Your task to perform on an android device: Open the stopwatch Image 0: 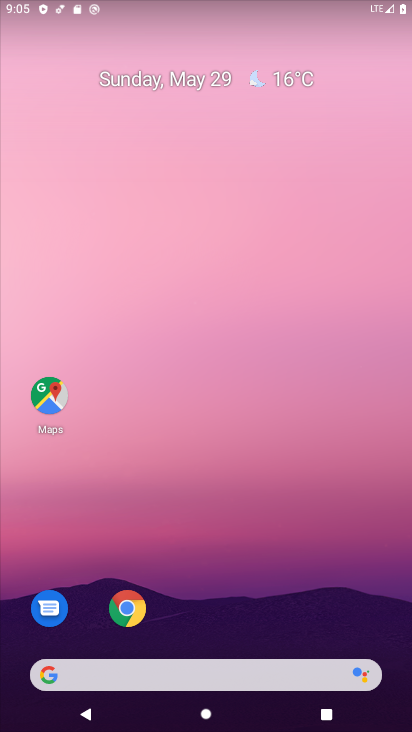
Step 0: drag from (159, 628) to (205, 39)
Your task to perform on an android device: Open the stopwatch Image 1: 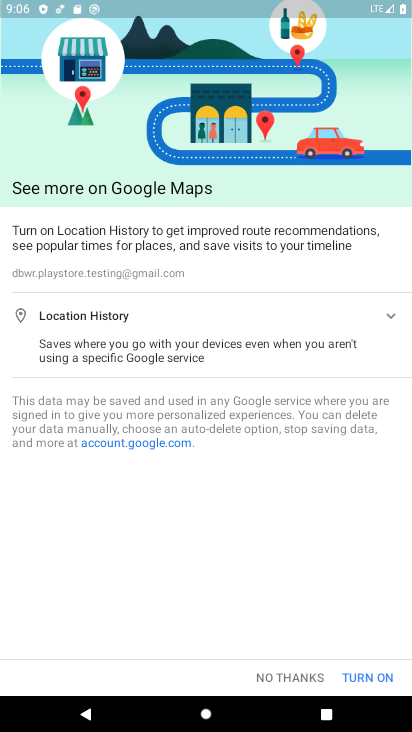
Step 1: press home button
Your task to perform on an android device: Open the stopwatch Image 2: 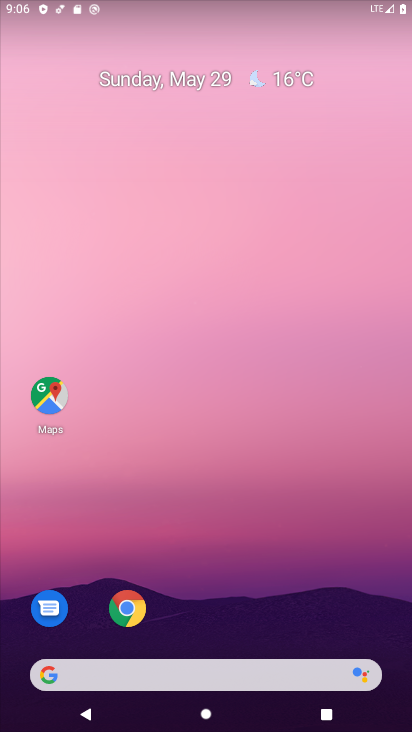
Step 2: drag from (219, 598) to (249, 21)
Your task to perform on an android device: Open the stopwatch Image 3: 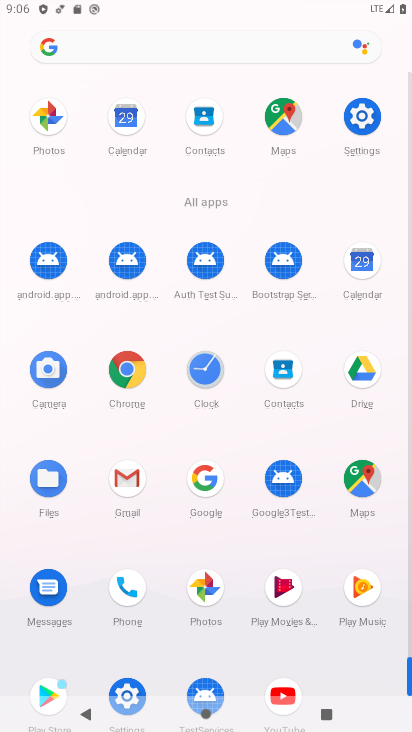
Step 3: click (206, 391)
Your task to perform on an android device: Open the stopwatch Image 4: 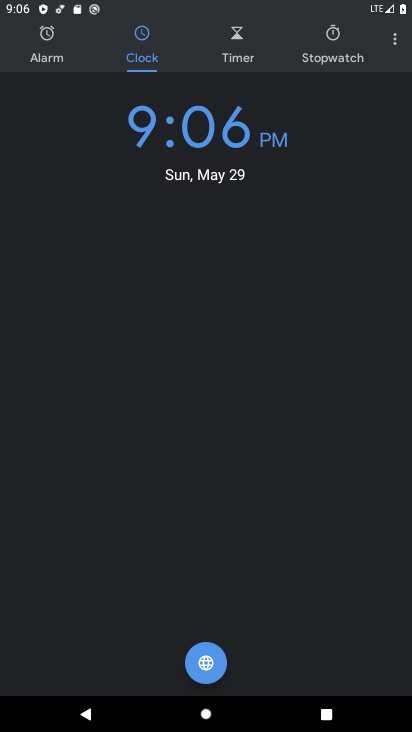
Step 4: click (336, 49)
Your task to perform on an android device: Open the stopwatch Image 5: 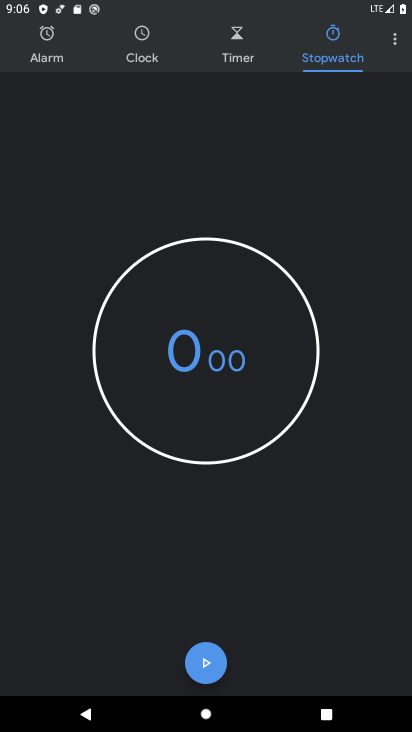
Step 5: click (205, 666)
Your task to perform on an android device: Open the stopwatch Image 6: 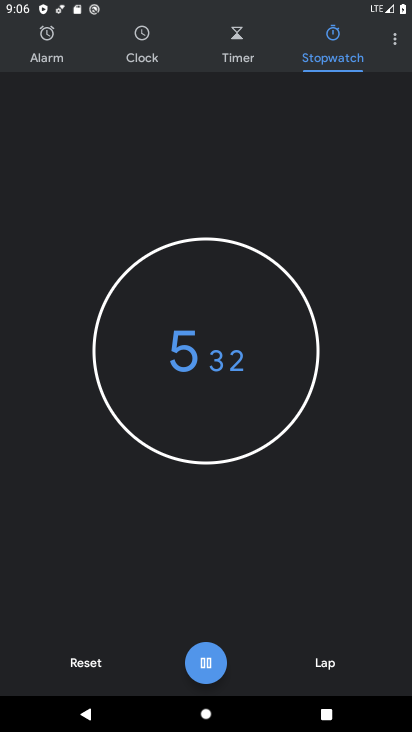
Step 6: click (205, 666)
Your task to perform on an android device: Open the stopwatch Image 7: 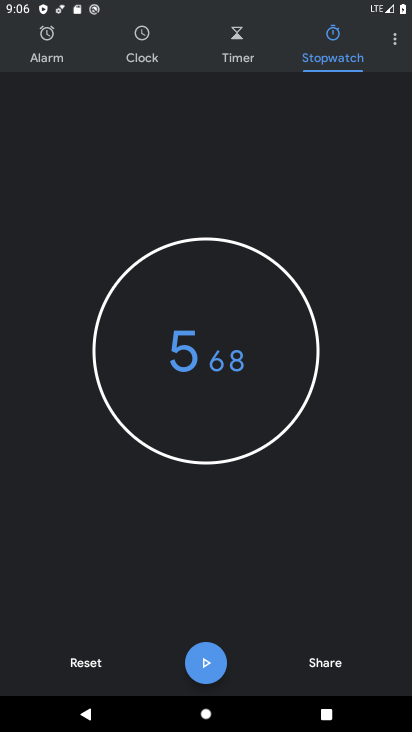
Step 7: task complete